Your task to perform on an android device: turn off notifications settings in the gmail app Image 0: 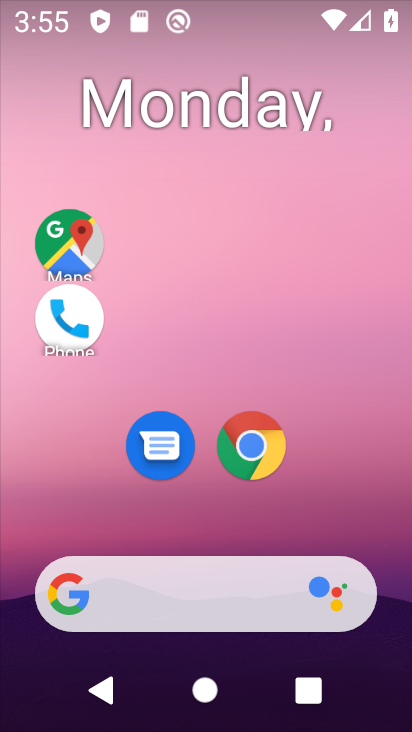
Step 0: drag from (246, 528) to (164, 7)
Your task to perform on an android device: turn off notifications settings in the gmail app Image 1: 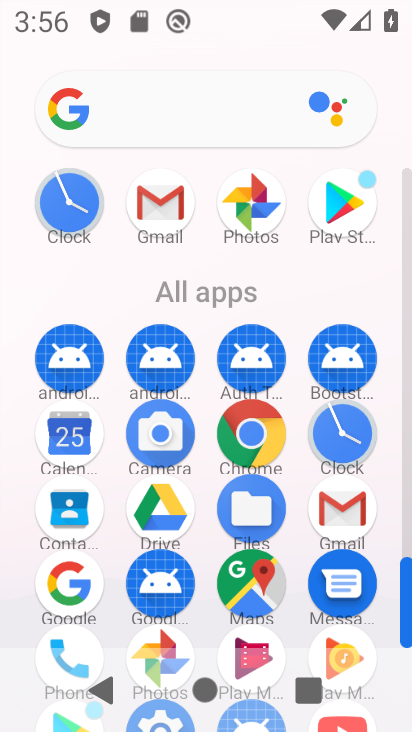
Step 1: click (333, 503)
Your task to perform on an android device: turn off notifications settings in the gmail app Image 2: 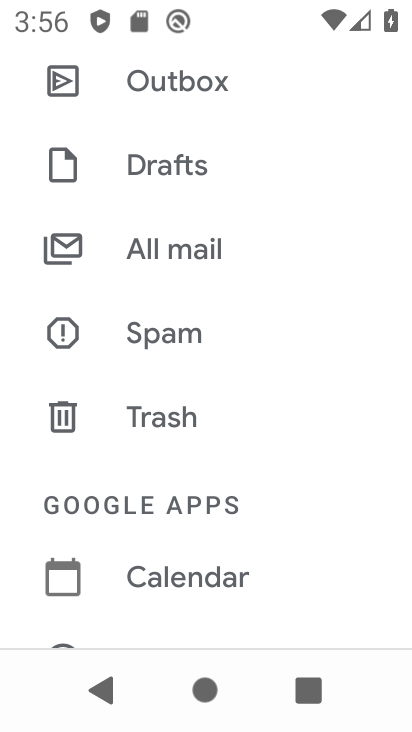
Step 2: drag from (273, 589) to (194, 129)
Your task to perform on an android device: turn off notifications settings in the gmail app Image 3: 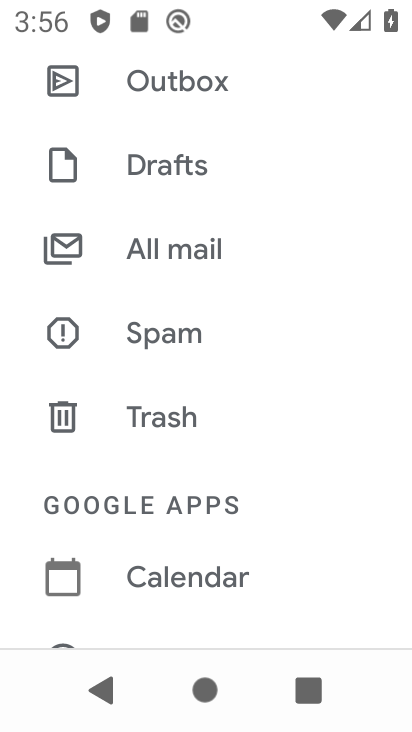
Step 3: drag from (272, 610) to (335, 184)
Your task to perform on an android device: turn off notifications settings in the gmail app Image 4: 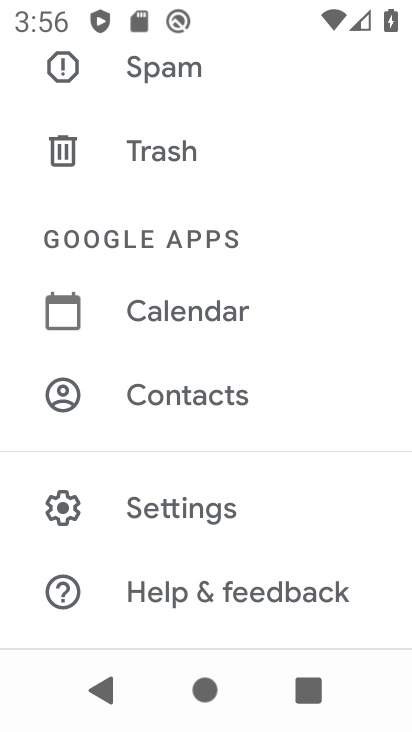
Step 4: click (188, 513)
Your task to perform on an android device: turn off notifications settings in the gmail app Image 5: 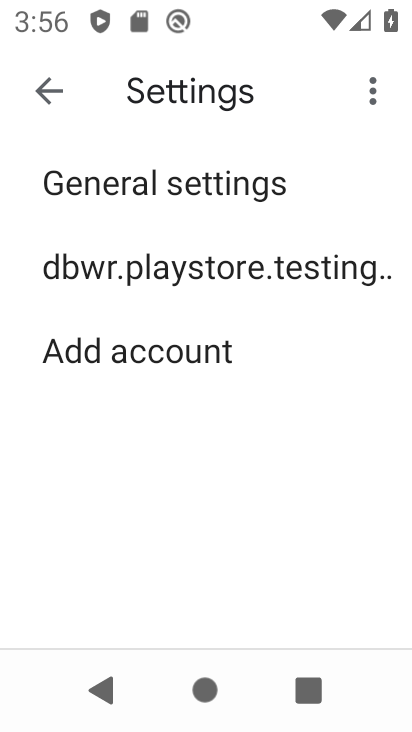
Step 5: click (163, 263)
Your task to perform on an android device: turn off notifications settings in the gmail app Image 6: 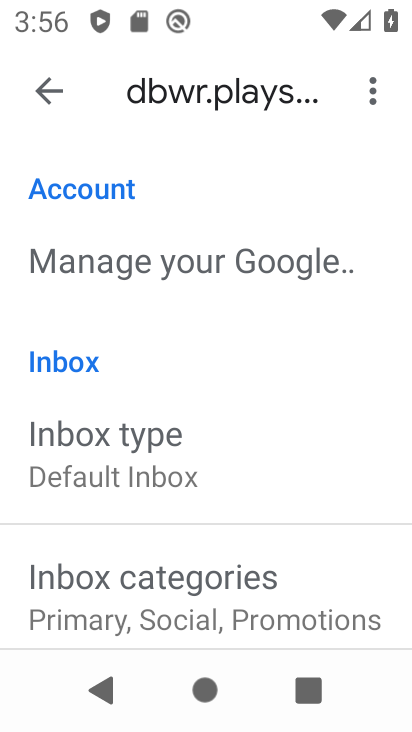
Step 6: drag from (217, 599) to (188, 214)
Your task to perform on an android device: turn off notifications settings in the gmail app Image 7: 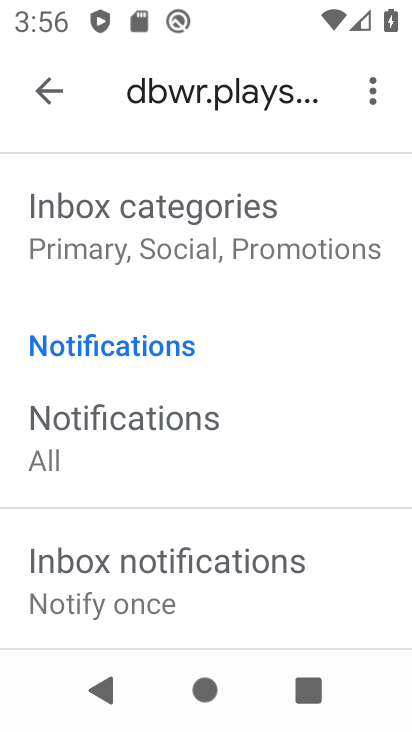
Step 7: drag from (188, 493) to (199, 185)
Your task to perform on an android device: turn off notifications settings in the gmail app Image 8: 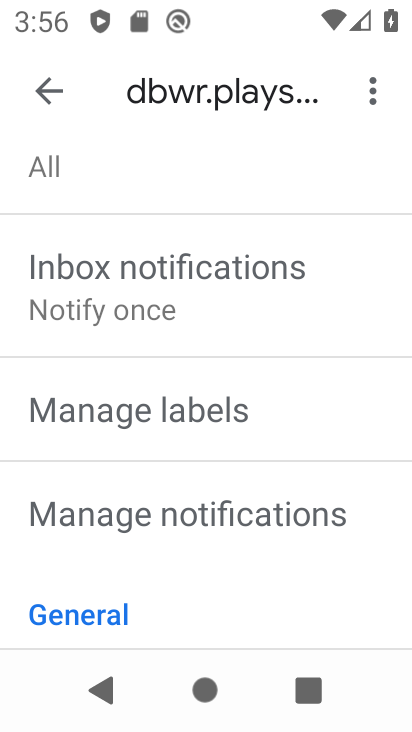
Step 8: click (153, 499)
Your task to perform on an android device: turn off notifications settings in the gmail app Image 9: 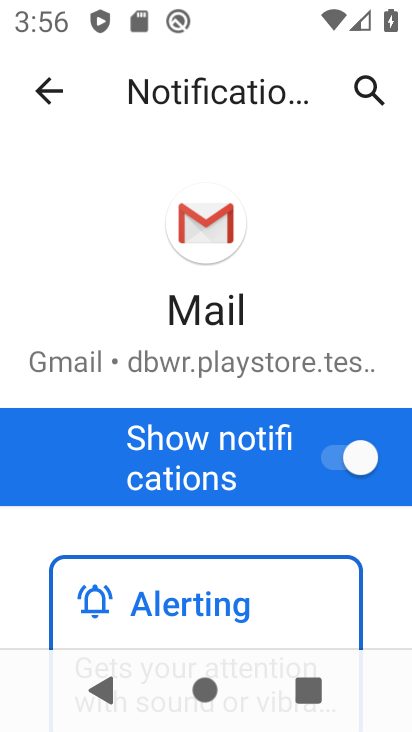
Step 9: click (349, 455)
Your task to perform on an android device: turn off notifications settings in the gmail app Image 10: 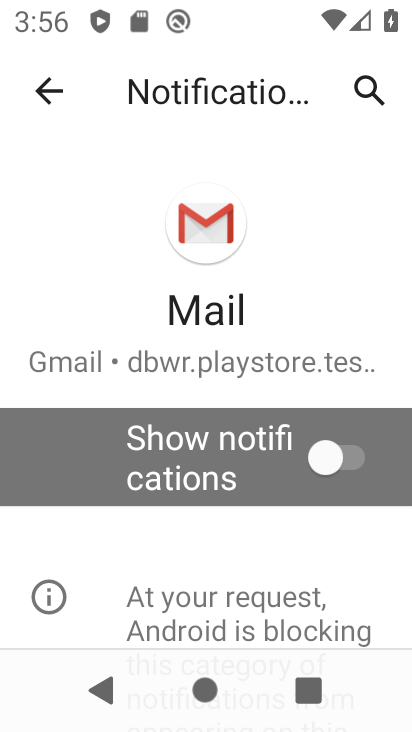
Step 10: task complete